Your task to perform on an android device: toggle data saver in the chrome app Image 0: 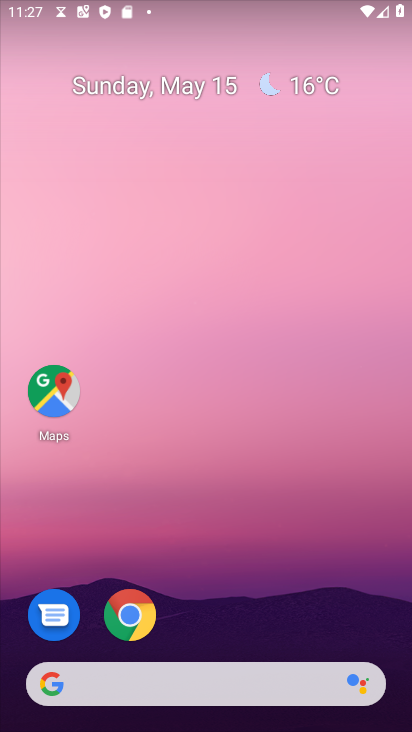
Step 0: drag from (271, 633) to (301, 0)
Your task to perform on an android device: toggle data saver in the chrome app Image 1: 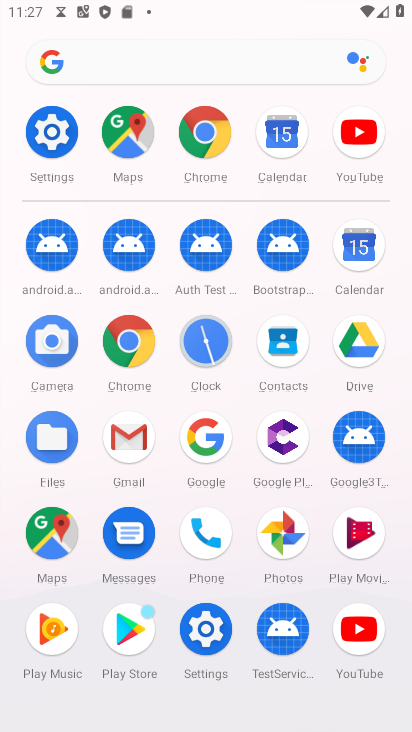
Step 1: click (102, 341)
Your task to perform on an android device: toggle data saver in the chrome app Image 2: 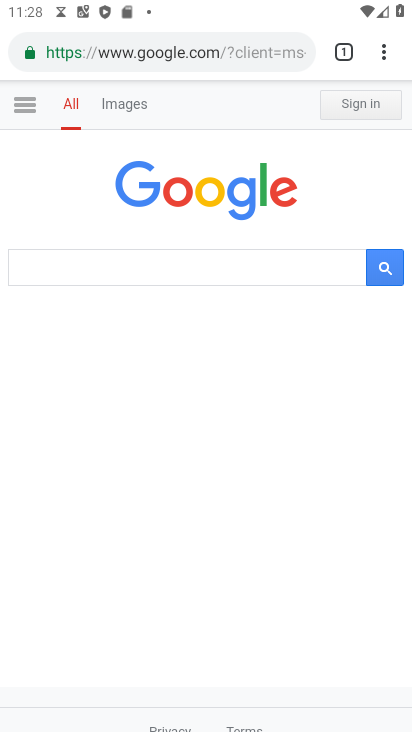
Step 2: drag from (375, 45) to (230, 506)
Your task to perform on an android device: toggle data saver in the chrome app Image 3: 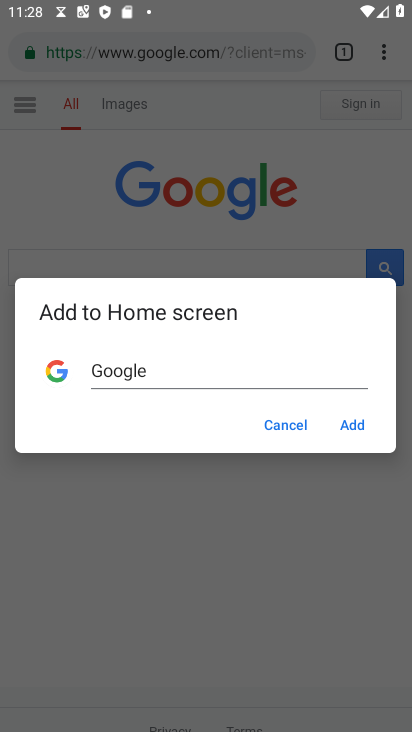
Step 3: drag from (342, 368) to (231, 441)
Your task to perform on an android device: toggle data saver in the chrome app Image 4: 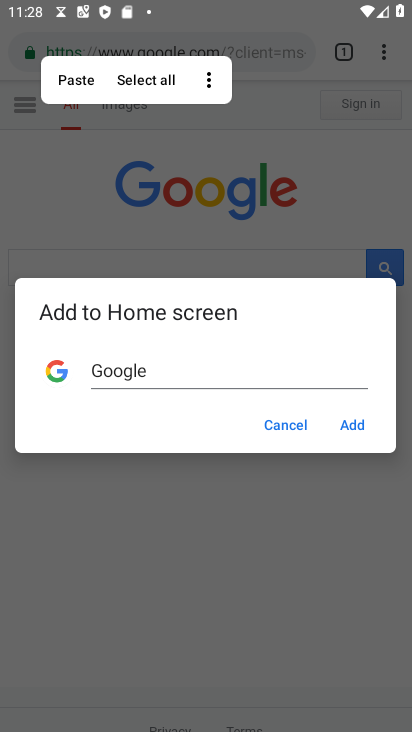
Step 4: click (302, 374)
Your task to perform on an android device: toggle data saver in the chrome app Image 5: 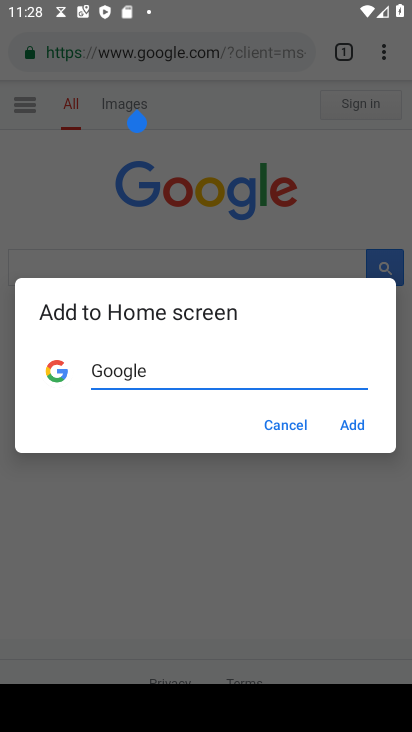
Step 5: click (284, 354)
Your task to perform on an android device: toggle data saver in the chrome app Image 6: 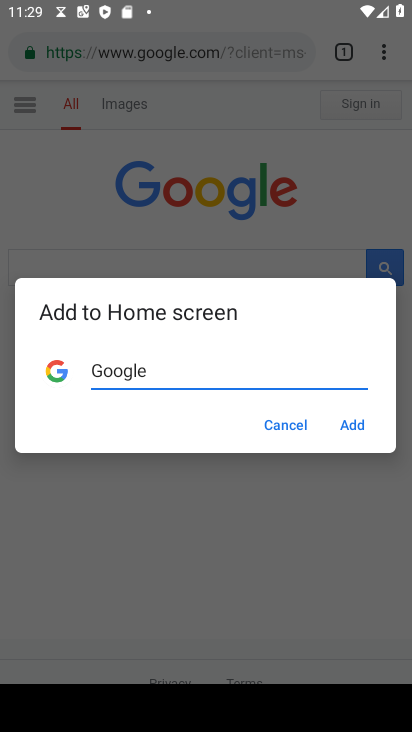
Step 6: press home button
Your task to perform on an android device: toggle data saver in the chrome app Image 7: 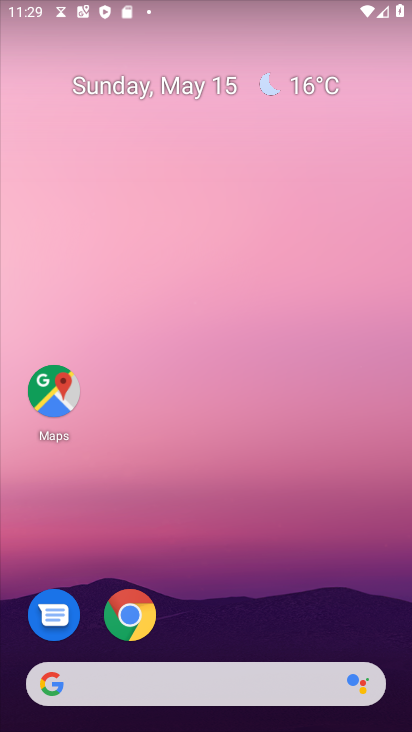
Step 7: drag from (75, 539) to (190, 35)
Your task to perform on an android device: toggle data saver in the chrome app Image 8: 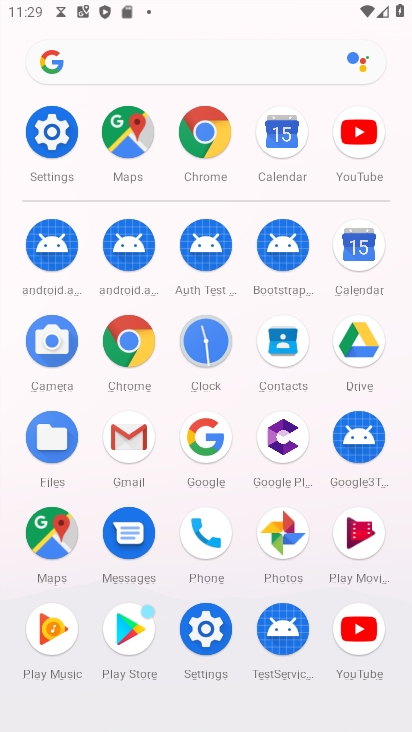
Step 8: click (152, 338)
Your task to perform on an android device: toggle data saver in the chrome app Image 9: 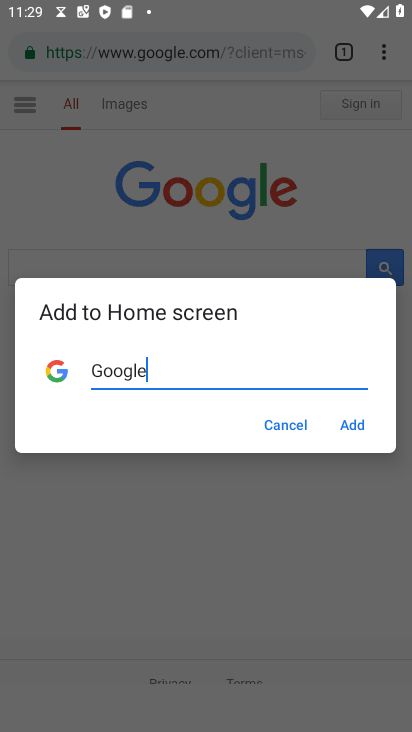
Step 9: click (282, 426)
Your task to perform on an android device: toggle data saver in the chrome app Image 10: 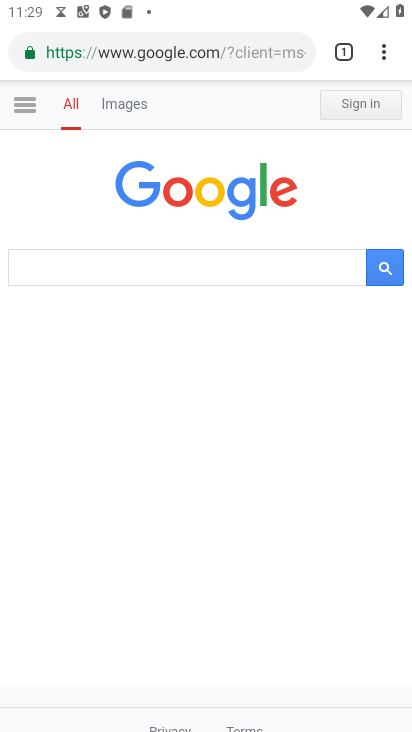
Step 10: drag from (385, 53) to (159, 558)
Your task to perform on an android device: toggle data saver in the chrome app Image 11: 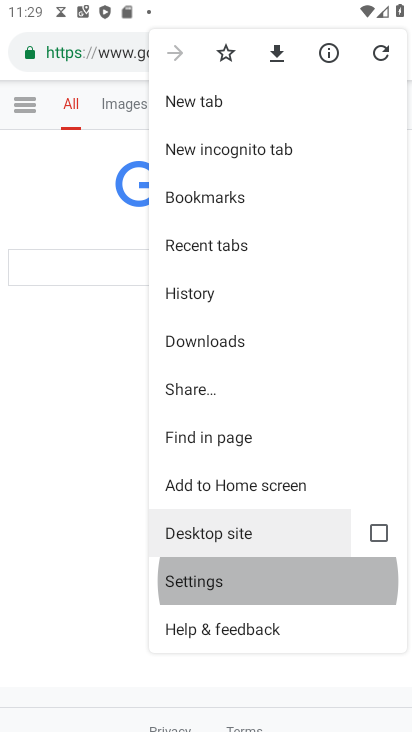
Step 11: click (158, 566)
Your task to perform on an android device: toggle data saver in the chrome app Image 12: 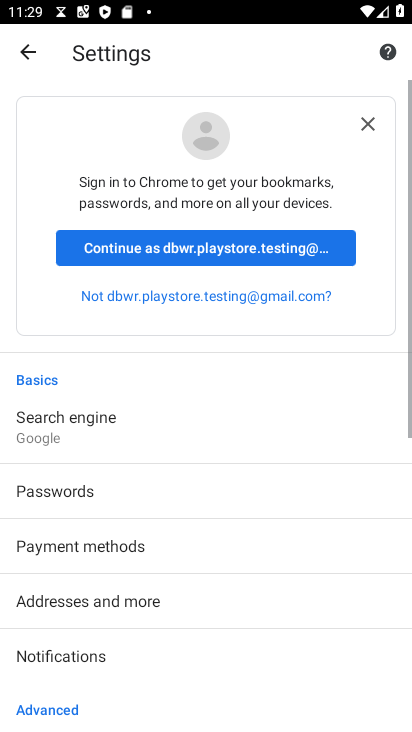
Step 12: drag from (197, 630) to (256, 146)
Your task to perform on an android device: toggle data saver in the chrome app Image 13: 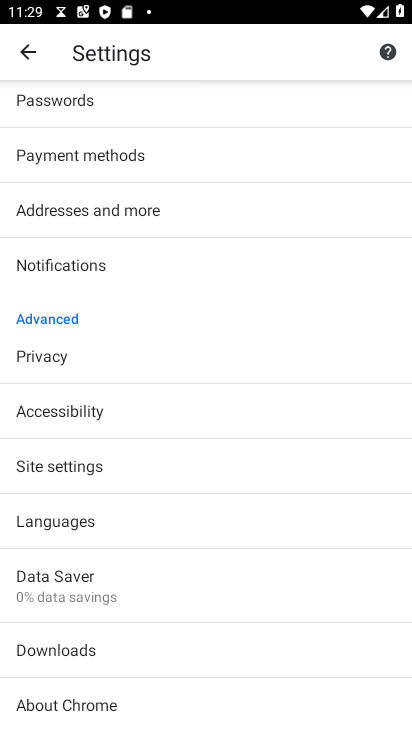
Step 13: drag from (296, 503) to (291, 134)
Your task to perform on an android device: toggle data saver in the chrome app Image 14: 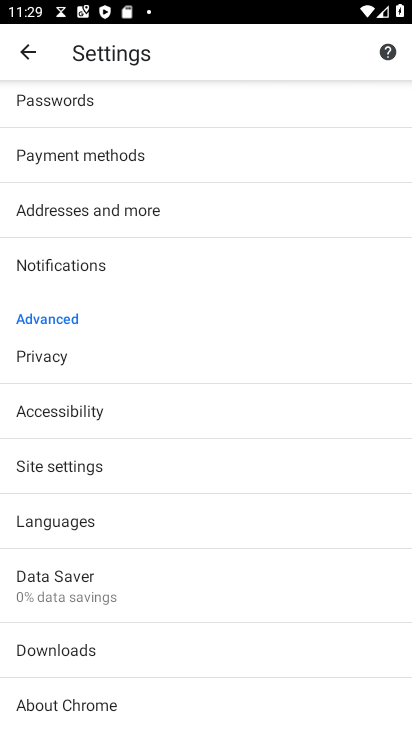
Step 14: click (130, 460)
Your task to perform on an android device: toggle data saver in the chrome app Image 15: 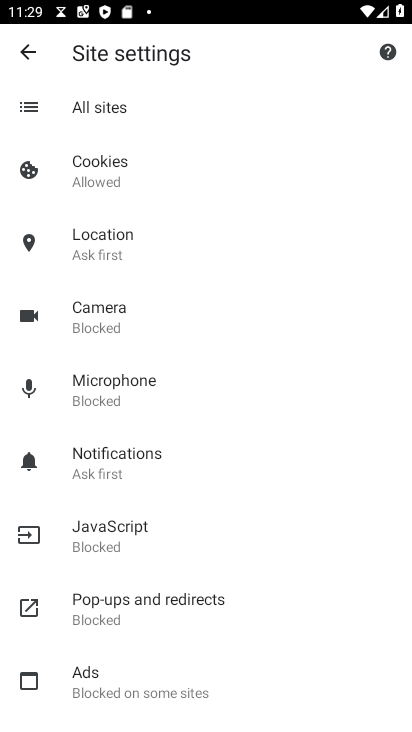
Step 15: press back button
Your task to perform on an android device: toggle data saver in the chrome app Image 16: 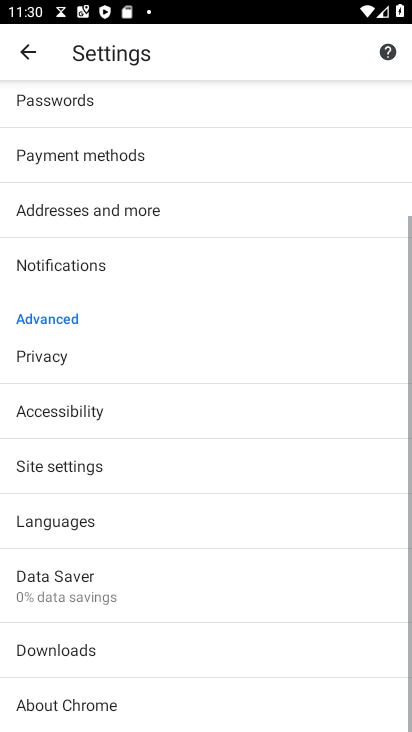
Step 16: click (130, 612)
Your task to perform on an android device: toggle data saver in the chrome app Image 17: 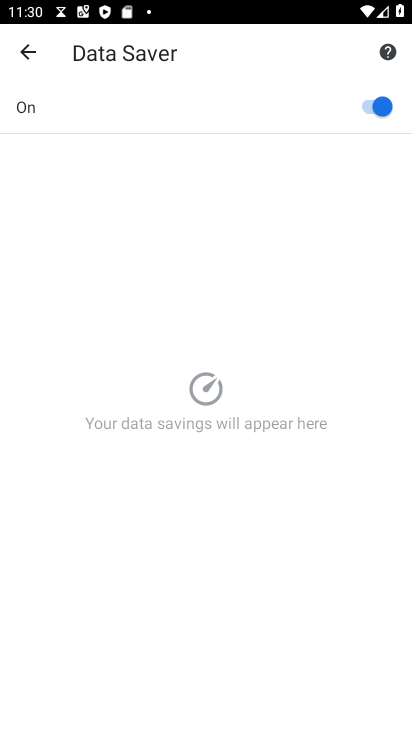
Step 17: task complete